Your task to perform on an android device: Search for Italian restaurants on Maps Image 0: 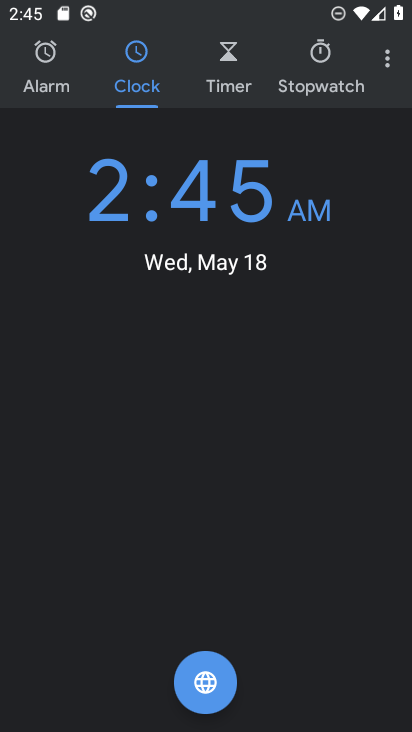
Step 0: press home button
Your task to perform on an android device: Search for Italian restaurants on Maps Image 1: 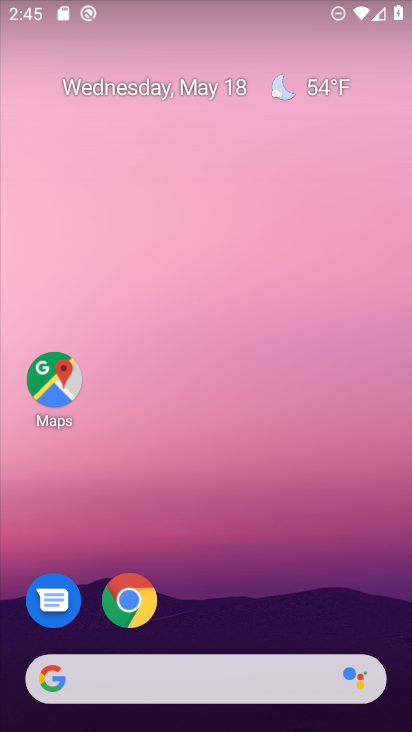
Step 1: click (57, 366)
Your task to perform on an android device: Search for Italian restaurants on Maps Image 2: 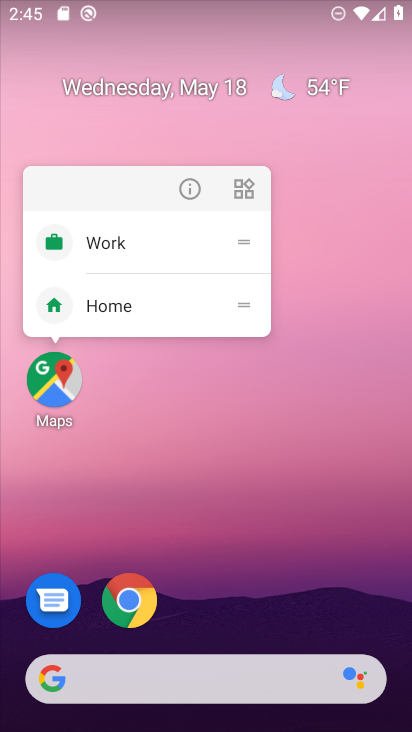
Step 2: click (62, 366)
Your task to perform on an android device: Search for Italian restaurants on Maps Image 3: 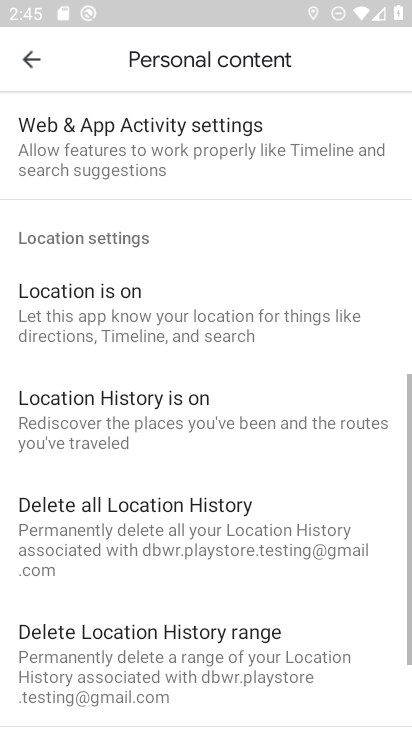
Step 3: click (38, 56)
Your task to perform on an android device: Search for Italian restaurants on Maps Image 4: 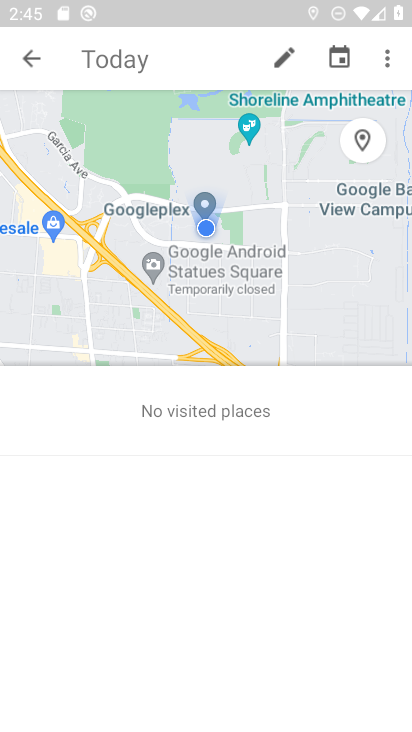
Step 4: click (38, 56)
Your task to perform on an android device: Search for Italian restaurants on Maps Image 5: 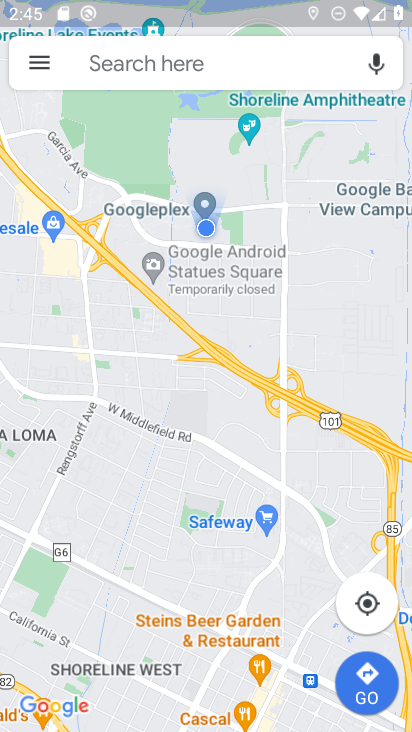
Step 5: click (182, 69)
Your task to perform on an android device: Search for Italian restaurants on Maps Image 6: 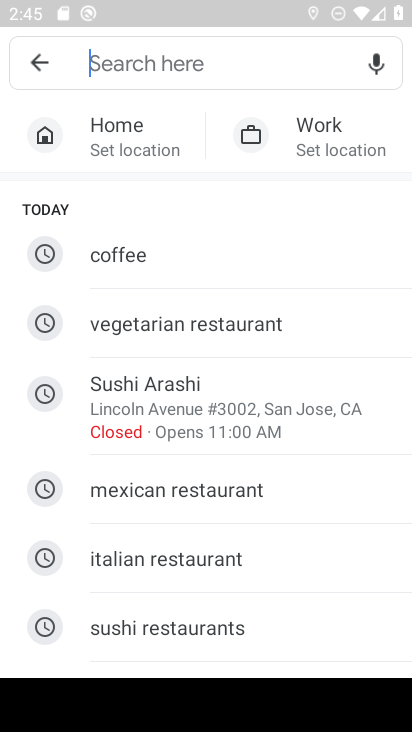
Step 6: type "italian restraunts"
Your task to perform on an android device: Search for Italian restaurants on Maps Image 7: 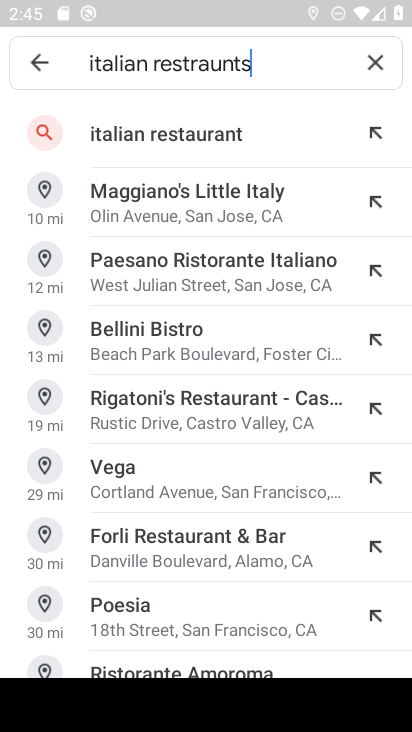
Step 7: click (198, 148)
Your task to perform on an android device: Search for Italian restaurants on Maps Image 8: 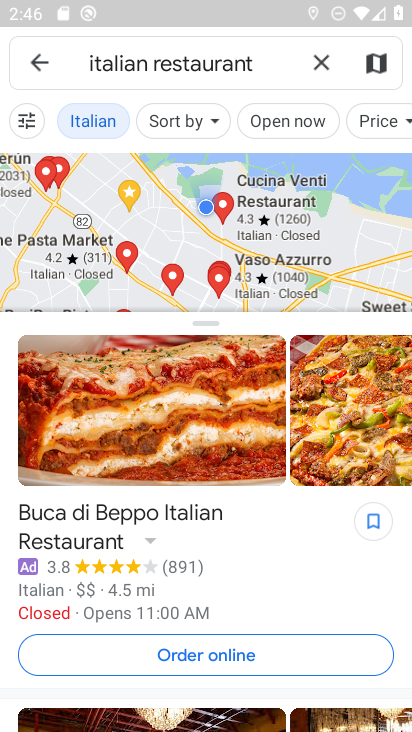
Step 8: task complete